Your task to perform on an android device: turn off improve location accuracy Image 0: 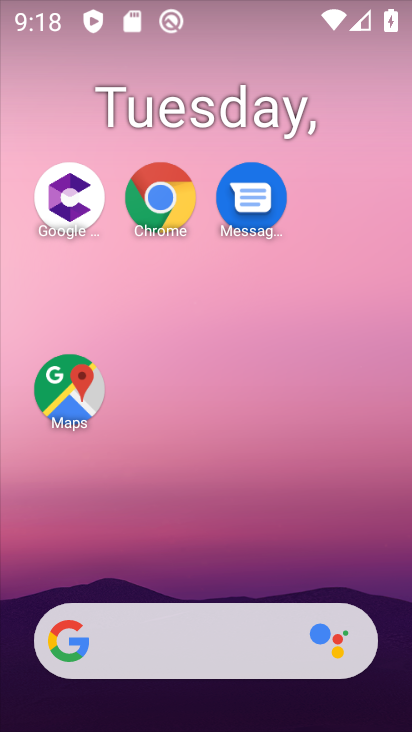
Step 0: drag from (210, 586) to (354, 4)
Your task to perform on an android device: turn off improve location accuracy Image 1: 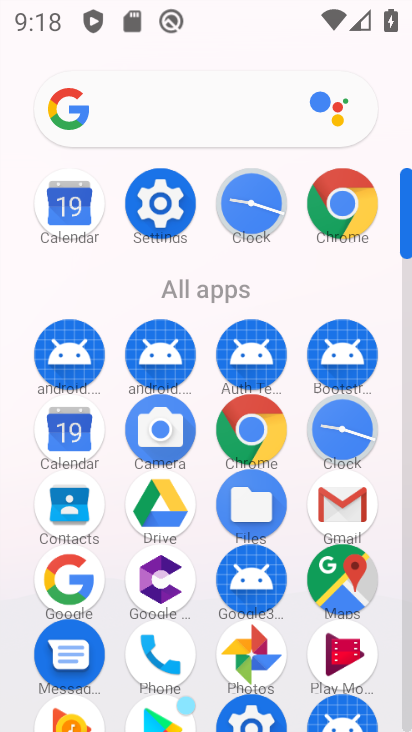
Step 1: click (157, 203)
Your task to perform on an android device: turn off improve location accuracy Image 2: 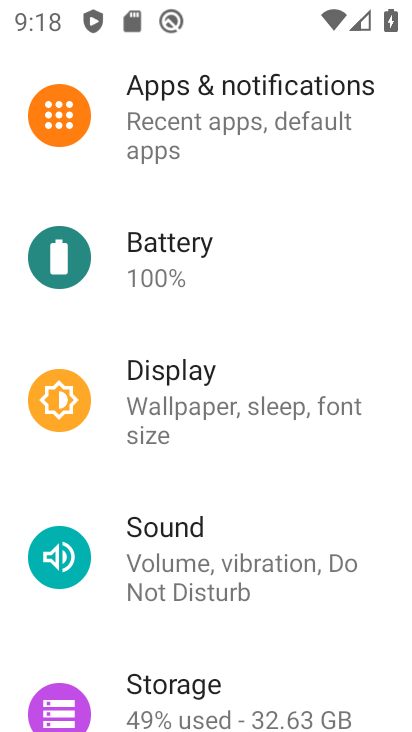
Step 2: drag from (249, 487) to (187, 3)
Your task to perform on an android device: turn off improve location accuracy Image 3: 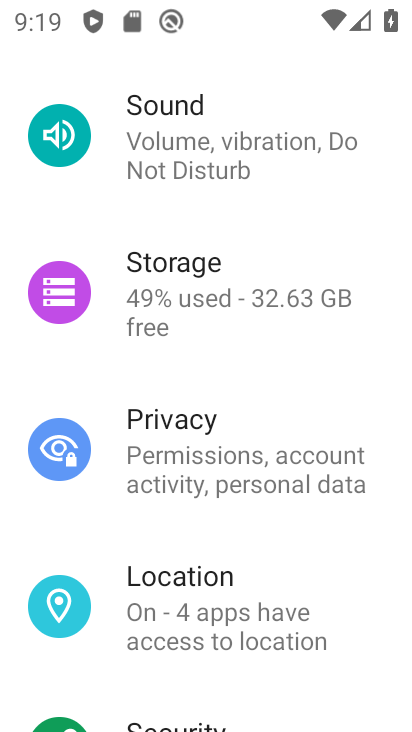
Step 3: click (203, 581)
Your task to perform on an android device: turn off improve location accuracy Image 4: 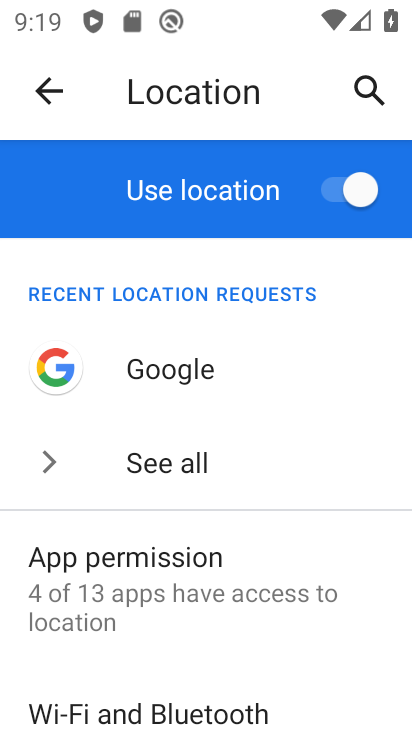
Step 4: drag from (262, 571) to (210, 78)
Your task to perform on an android device: turn off improve location accuracy Image 5: 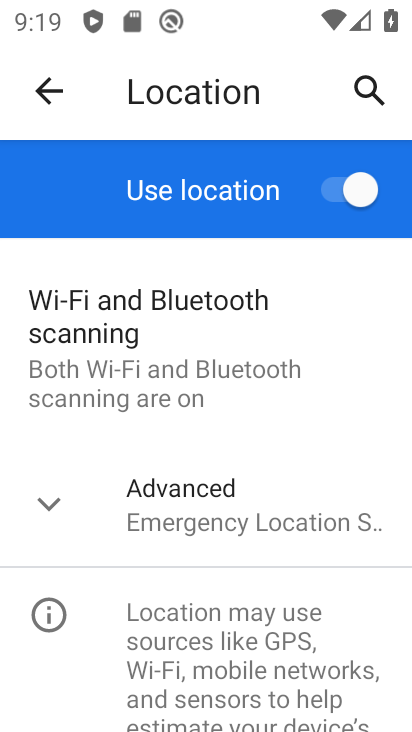
Step 5: click (240, 504)
Your task to perform on an android device: turn off improve location accuracy Image 6: 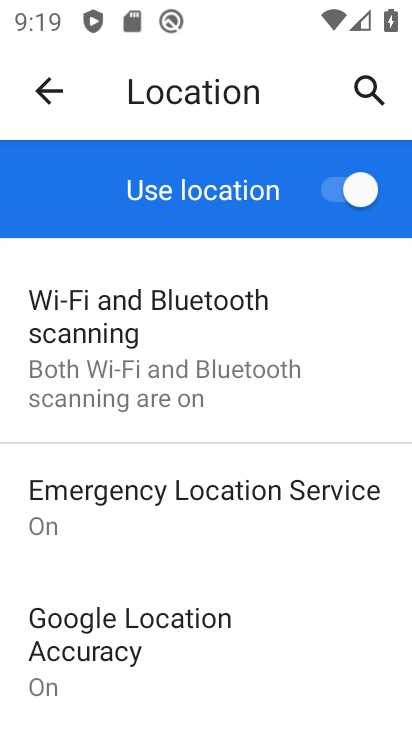
Step 6: click (190, 624)
Your task to perform on an android device: turn off improve location accuracy Image 7: 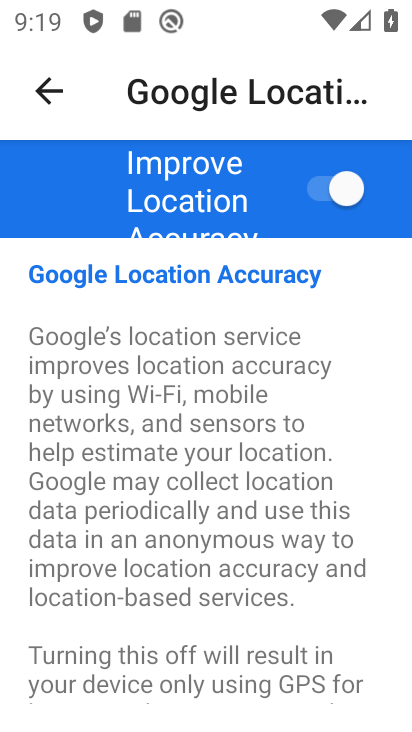
Step 7: click (356, 192)
Your task to perform on an android device: turn off improve location accuracy Image 8: 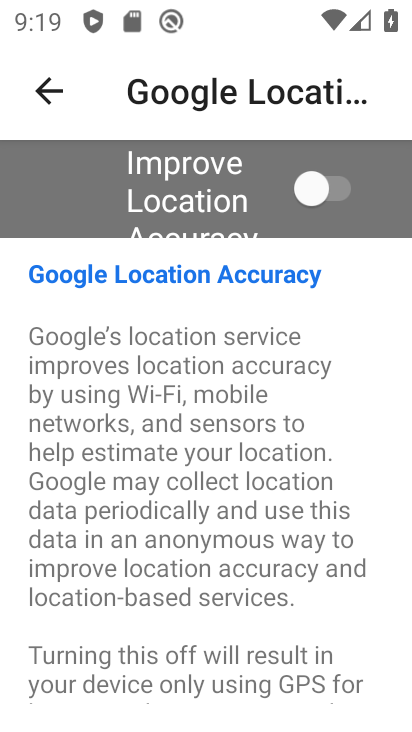
Step 8: task complete